Your task to perform on an android device: see sites visited before in the chrome app Image 0: 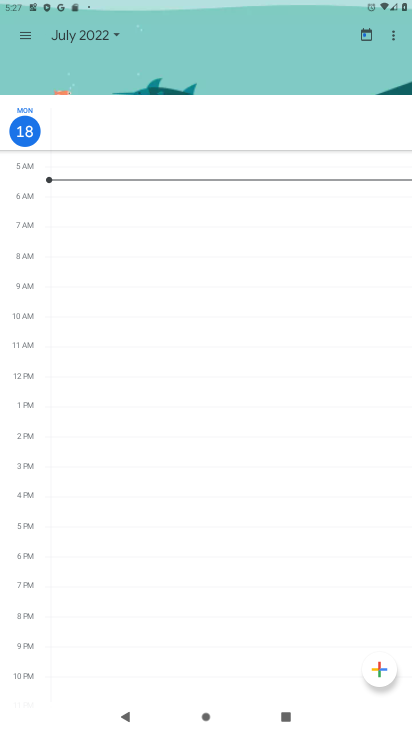
Step 0: press home button
Your task to perform on an android device: see sites visited before in the chrome app Image 1: 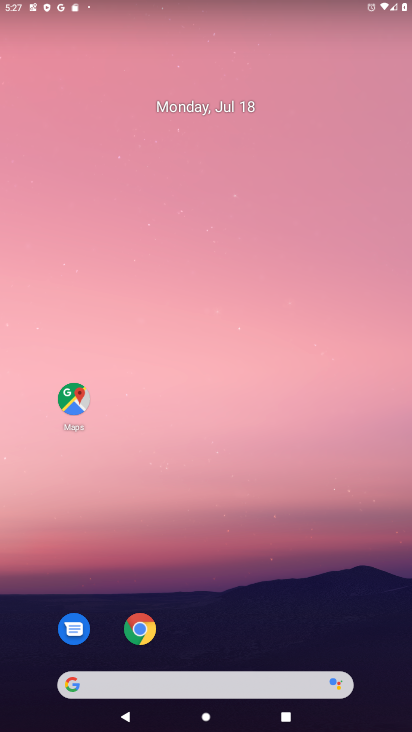
Step 1: drag from (328, 514) to (298, 103)
Your task to perform on an android device: see sites visited before in the chrome app Image 2: 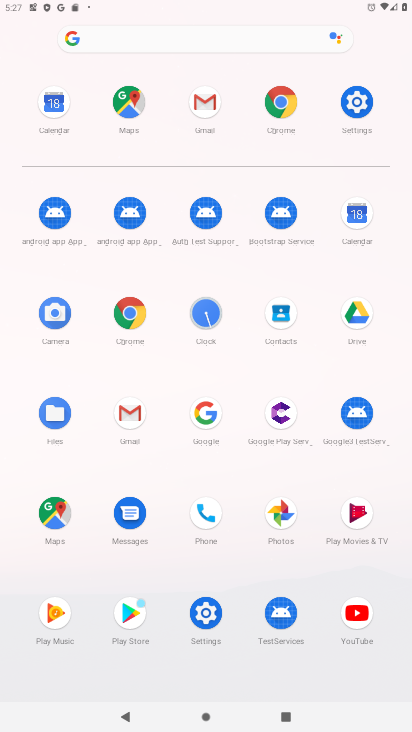
Step 2: click (120, 326)
Your task to perform on an android device: see sites visited before in the chrome app Image 3: 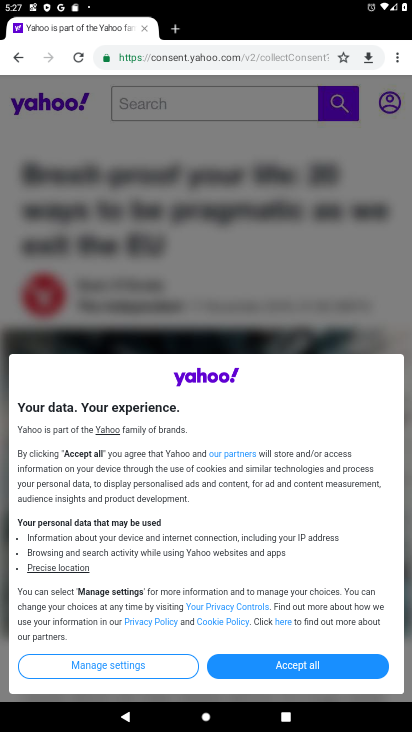
Step 3: task complete